Your task to perform on an android device: turn off notifications settings in the gmail app Image 0: 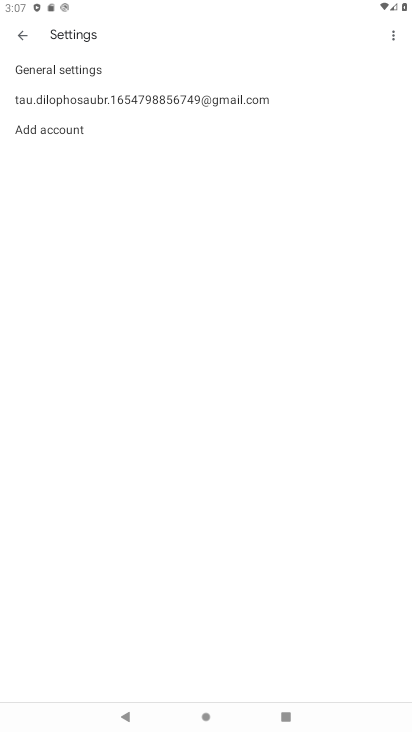
Step 0: press home button
Your task to perform on an android device: turn off notifications settings in the gmail app Image 1: 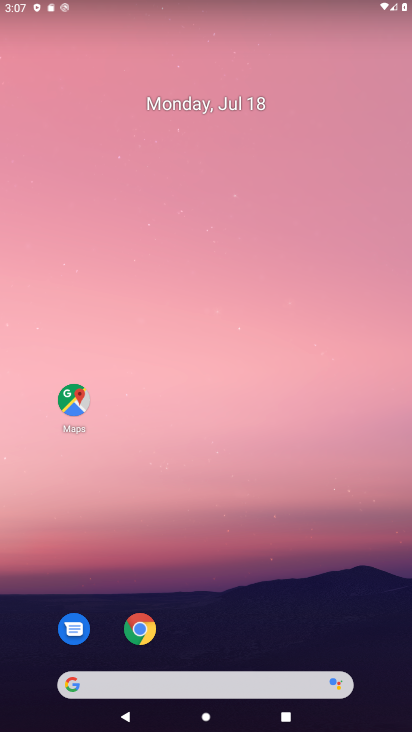
Step 1: drag from (390, 678) to (311, 3)
Your task to perform on an android device: turn off notifications settings in the gmail app Image 2: 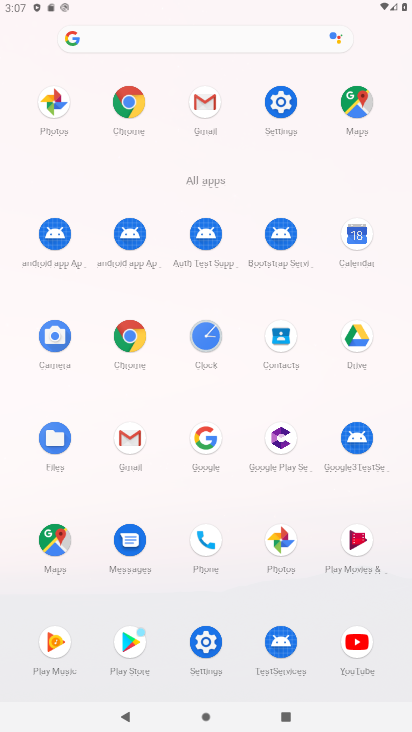
Step 2: click (124, 435)
Your task to perform on an android device: turn off notifications settings in the gmail app Image 3: 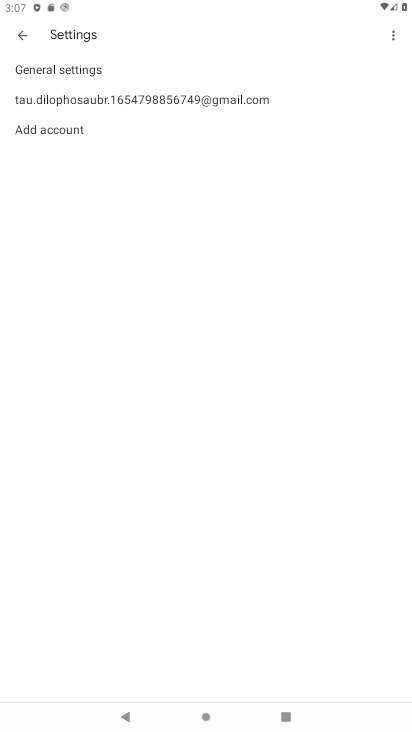
Step 3: click (105, 102)
Your task to perform on an android device: turn off notifications settings in the gmail app Image 4: 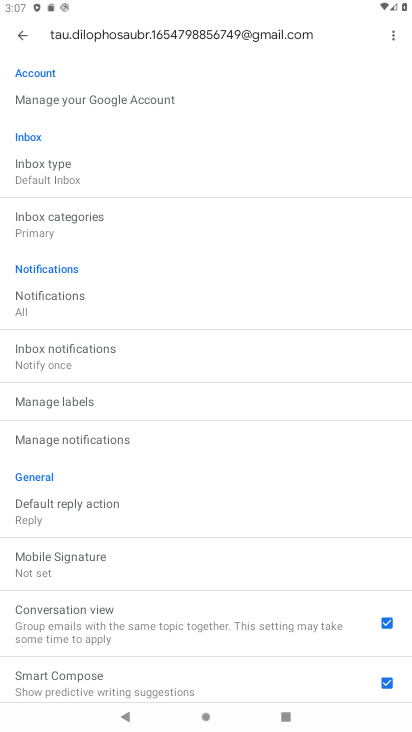
Step 4: click (61, 220)
Your task to perform on an android device: turn off notifications settings in the gmail app Image 5: 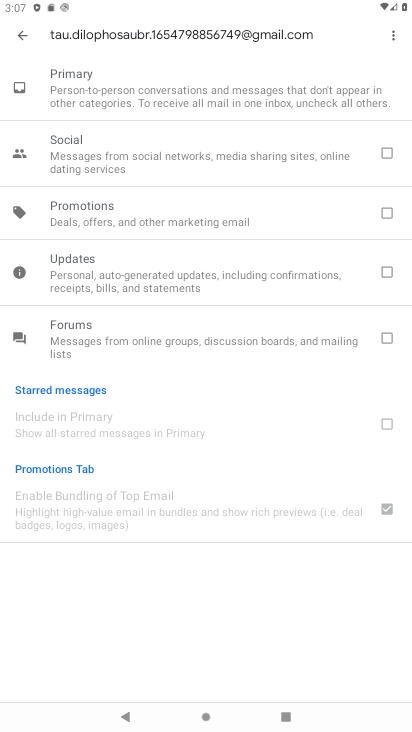
Step 5: click (22, 29)
Your task to perform on an android device: turn off notifications settings in the gmail app Image 6: 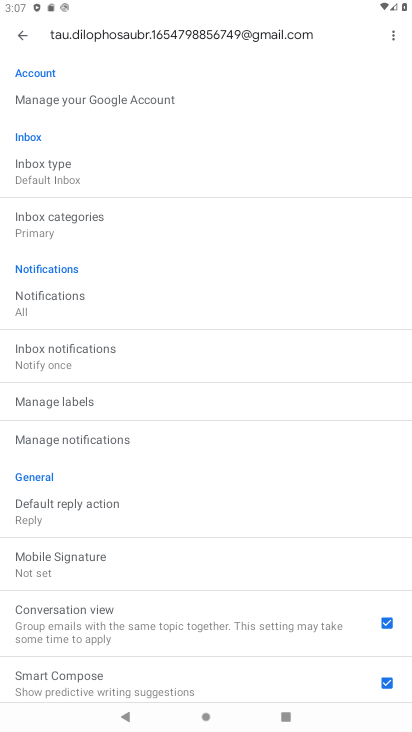
Step 6: click (42, 292)
Your task to perform on an android device: turn off notifications settings in the gmail app Image 7: 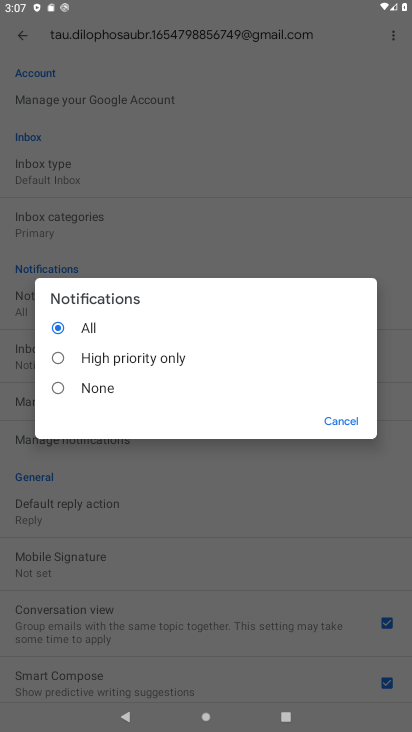
Step 7: click (80, 385)
Your task to perform on an android device: turn off notifications settings in the gmail app Image 8: 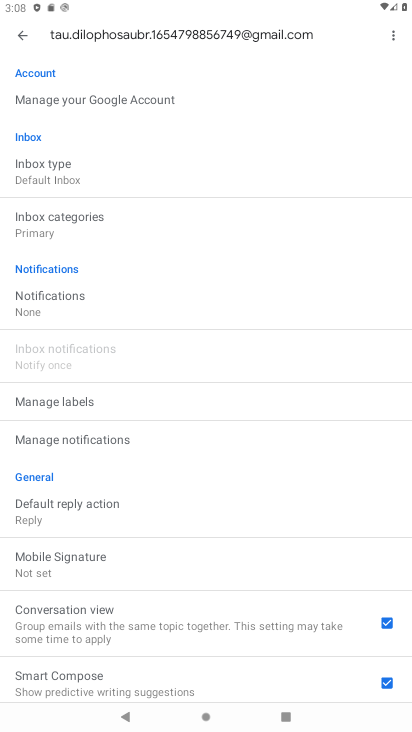
Step 8: task complete